Your task to perform on an android device: Open Android settings Image 0: 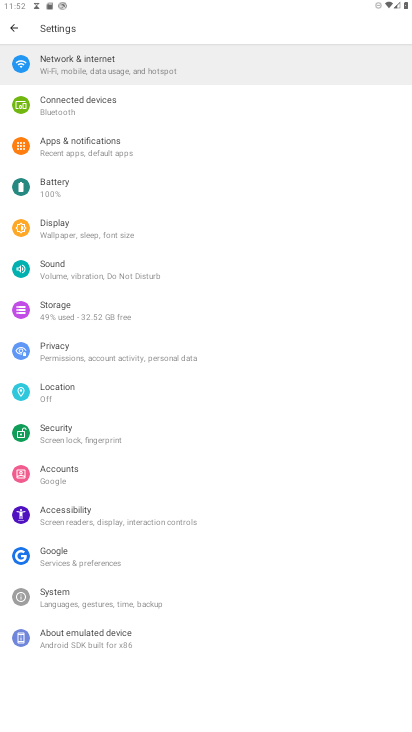
Step 0: press home button
Your task to perform on an android device: Open Android settings Image 1: 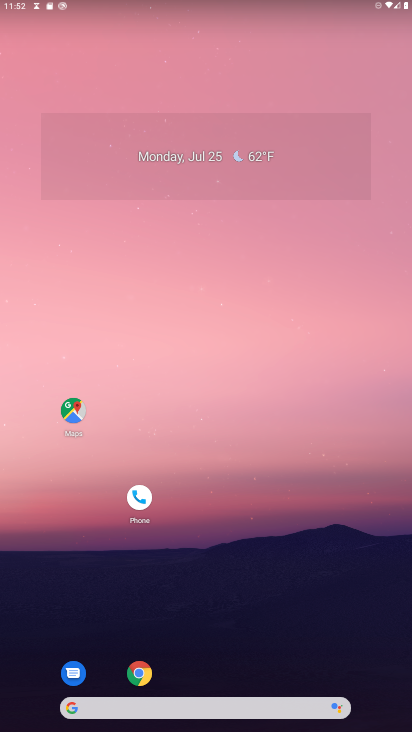
Step 1: drag from (302, 595) to (294, 105)
Your task to perform on an android device: Open Android settings Image 2: 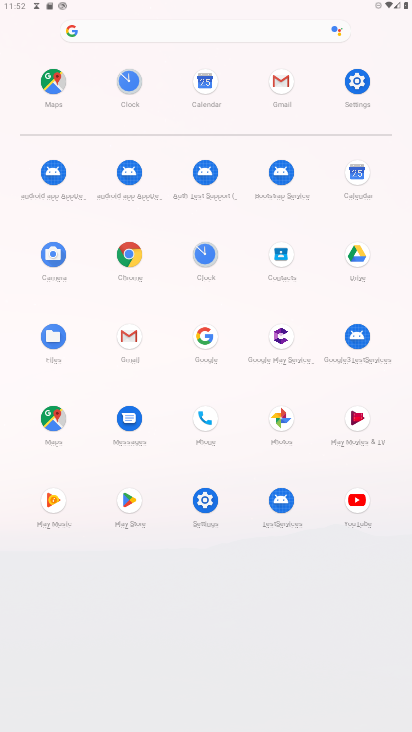
Step 2: click (351, 83)
Your task to perform on an android device: Open Android settings Image 3: 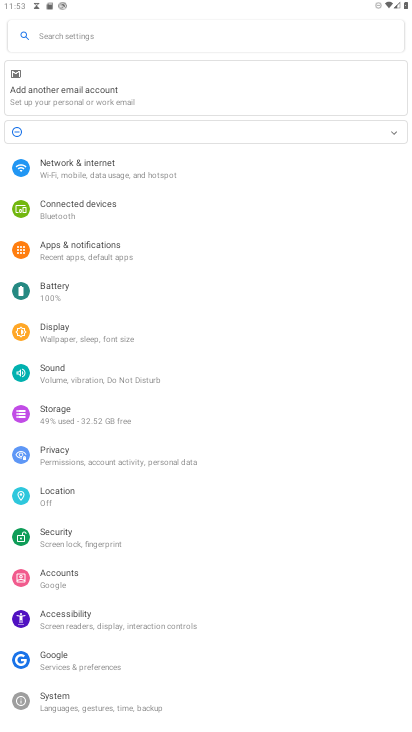
Step 3: task complete